Your task to perform on an android device: What's the weather going to be this weekend? Image 0: 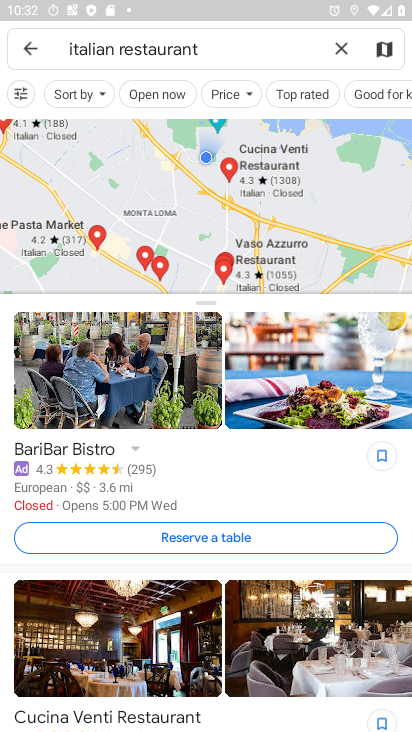
Step 0: press home button
Your task to perform on an android device: What's the weather going to be this weekend? Image 1: 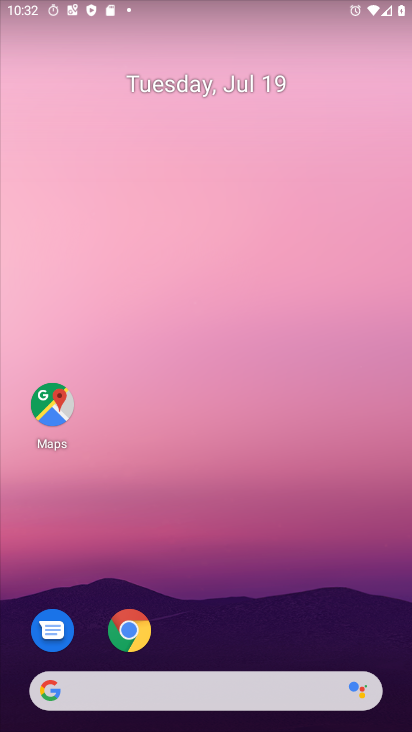
Step 1: click (38, 693)
Your task to perform on an android device: What's the weather going to be this weekend? Image 2: 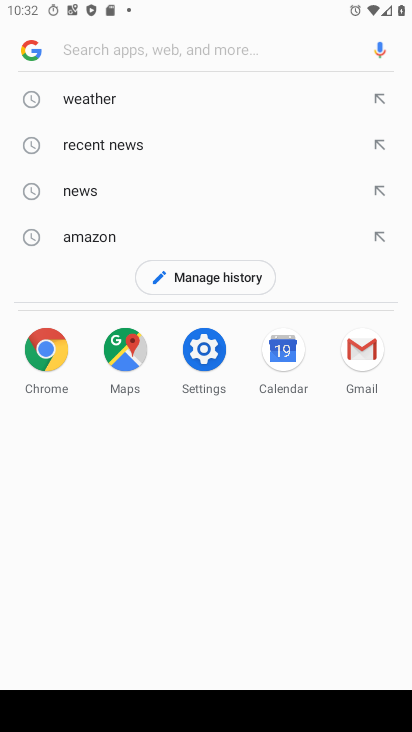
Step 2: type "weather going to be this weekend"
Your task to perform on an android device: What's the weather going to be this weekend? Image 3: 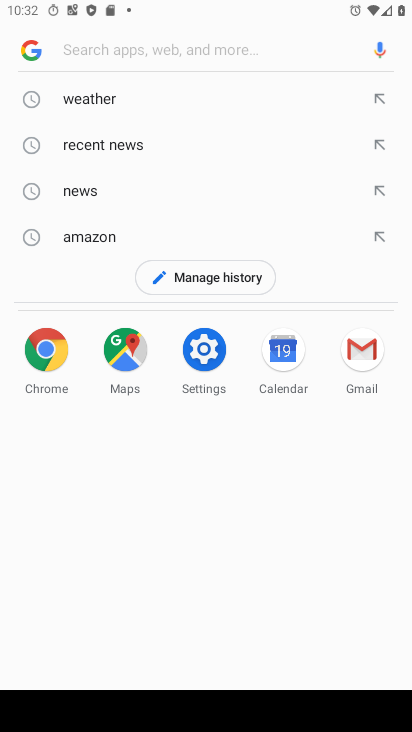
Step 3: click (89, 45)
Your task to perform on an android device: What's the weather going to be this weekend? Image 4: 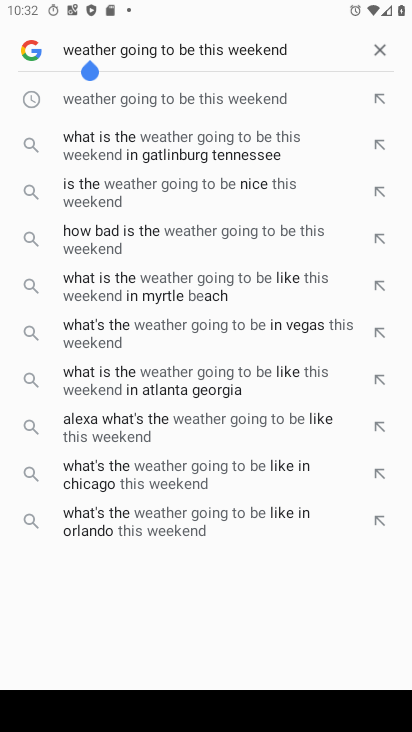
Step 4: click (36, 98)
Your task to perform on an android device: What's the weather going to be this weekend? Image 5: 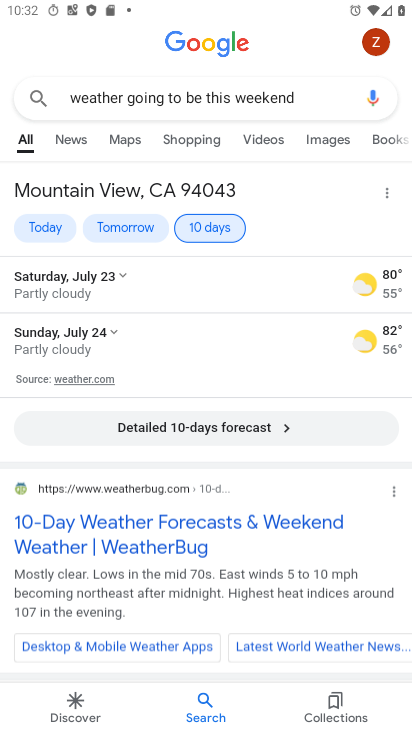
Step 5: task complete